Your task to perform on an android device: Go to eBay Image 0: 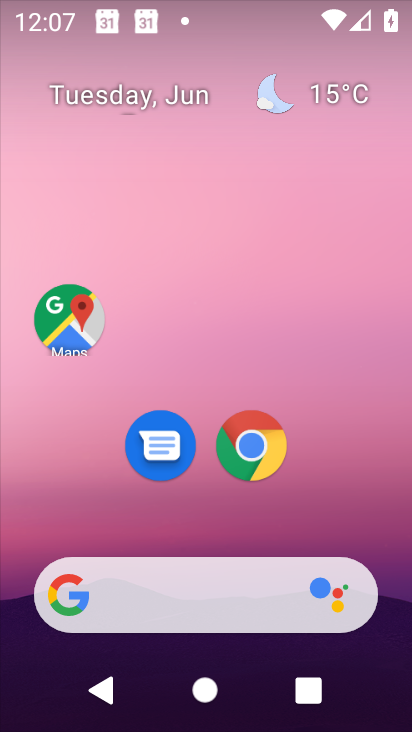
Step 0: click (243, 438)
Your task to perform on an android device: Go to eBay Image 1: 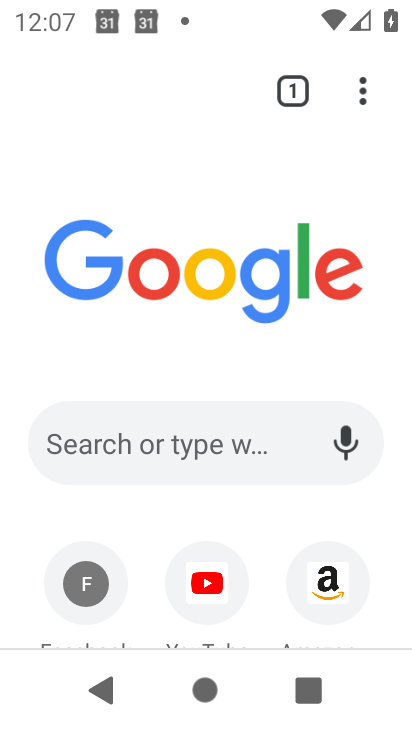
Step 1: drag from (144, 473) to (63, 41)
Your task to perform on an android device: Go to eBay Image 2: 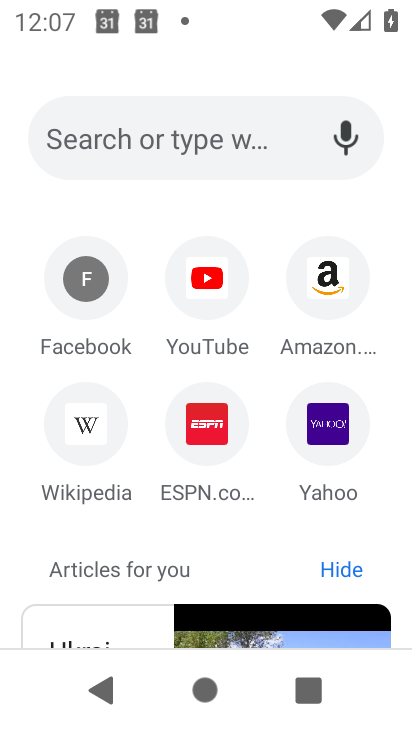
Step 2: click (227, 145)
Your task to perform on an android device: Go to eBay Image 3: 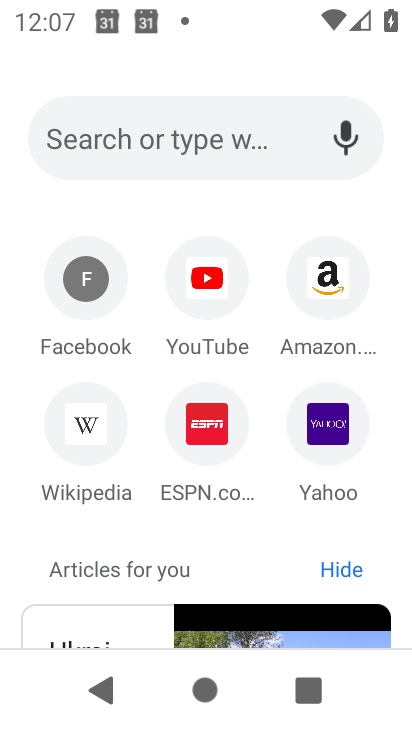
Step 3: type "ebay"
Your task to perform on an android device: Go to eBay Image 4: 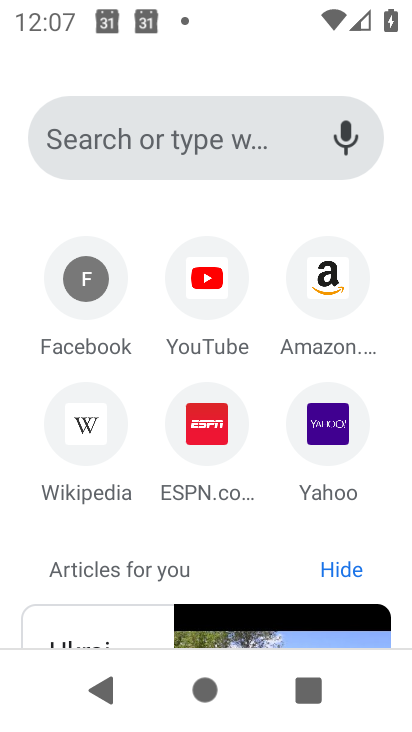
Step 4: click (153, 100)
Your task to perform on an android device: Go to eBay Image 5: 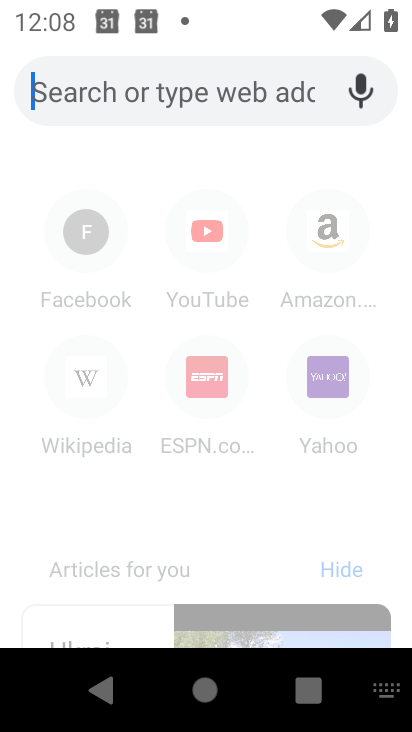
Step 5: type "ebat"
Your task to perform on an android device: Go to eBay Image 6: 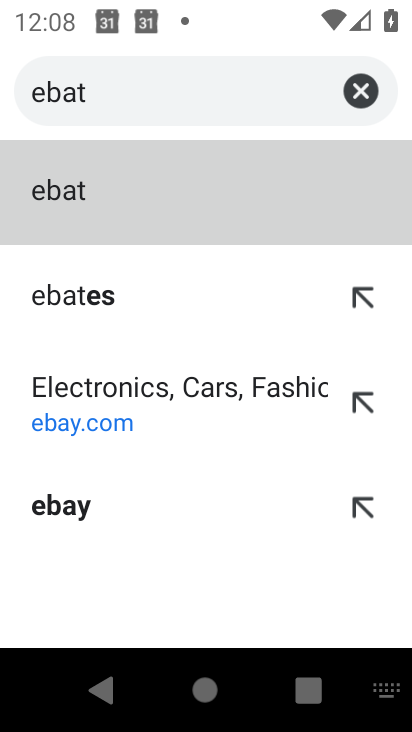
Step 6: click (162, 419)
Your task to perform on an android device: Go to eBay Image 7: 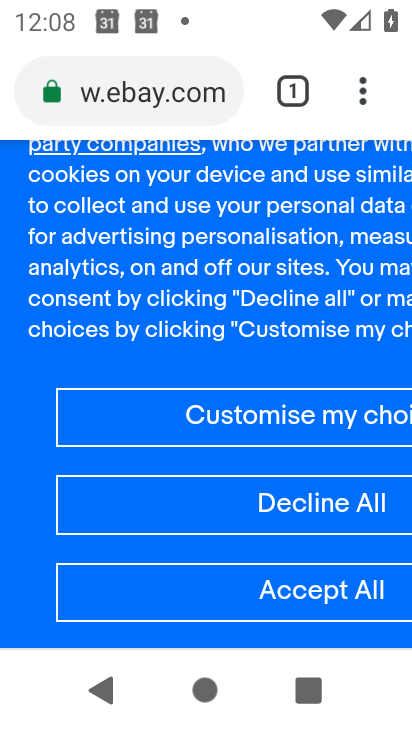
Step 7: task complete